Your task to perform on an android device: Clear the cart on bestbuy.com. Search for beats solo 3 on bestbuy.com, select the first entry, add it to the cart, then select checkout. Image 0: 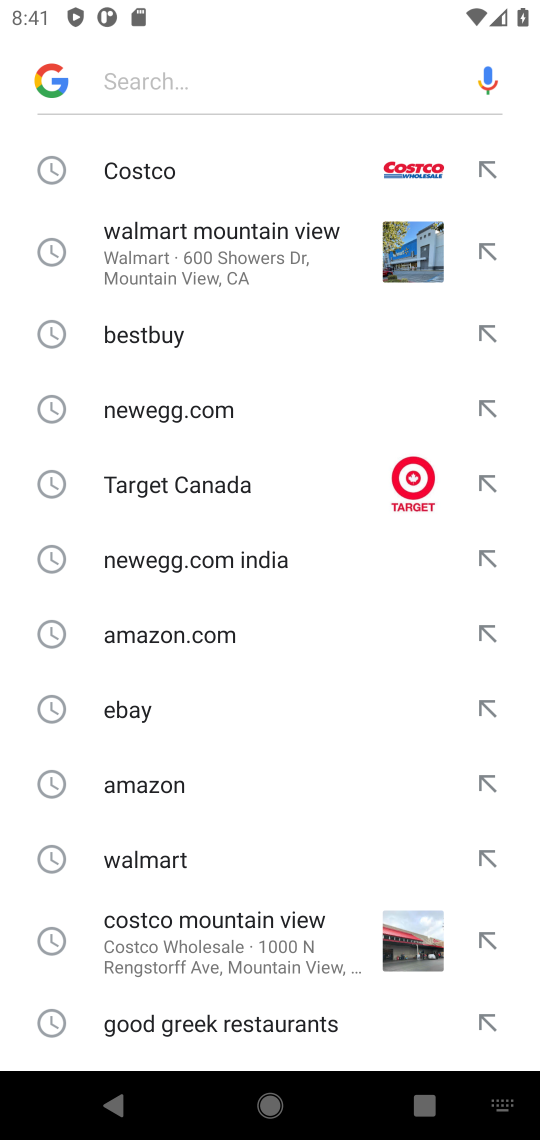
Step 0: click (277, 182)
Your task to perform on an android device: Clear the cart on bestbuy.com. Search for beats solo 3 on bestbuy.com, select the first entry, add it to the cart, then select checkout. Image 1: 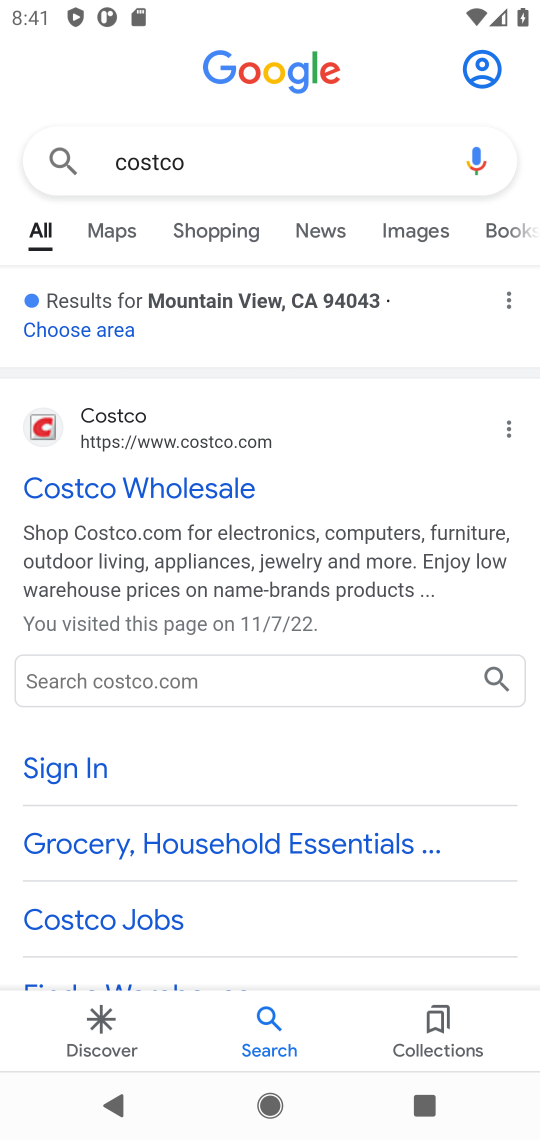
Step 1: click (227, 477)
Your task to perform on an android device: Clear the cart on bestbuy.com. Search for beats solo 3 on bestbuy.com, select the first entry, add it to the cart, then select checkout. Image 2: 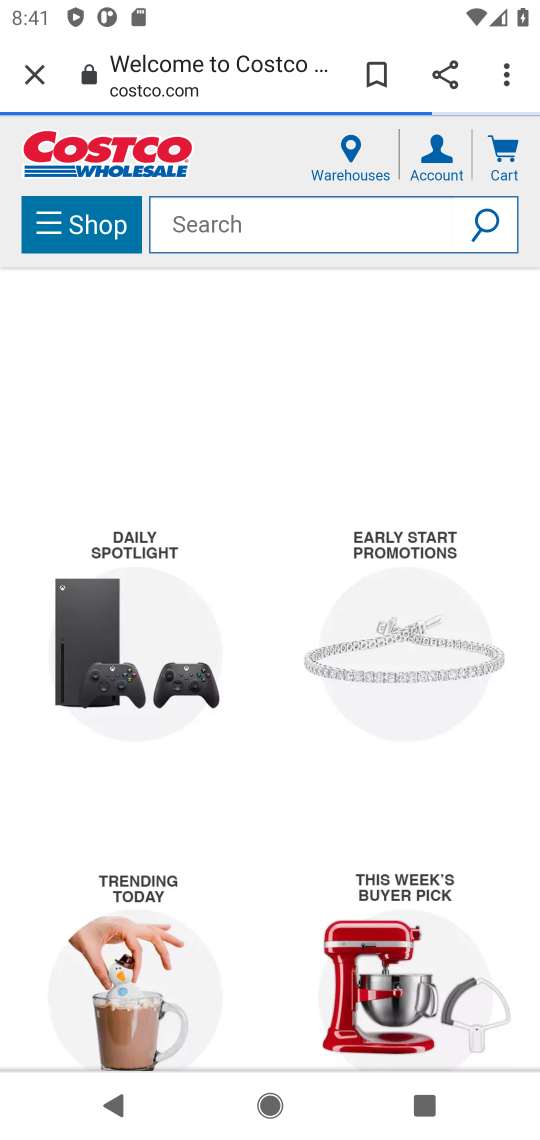
Step 2: task complete